Your task to perform on an android device: Open the map Image 0: 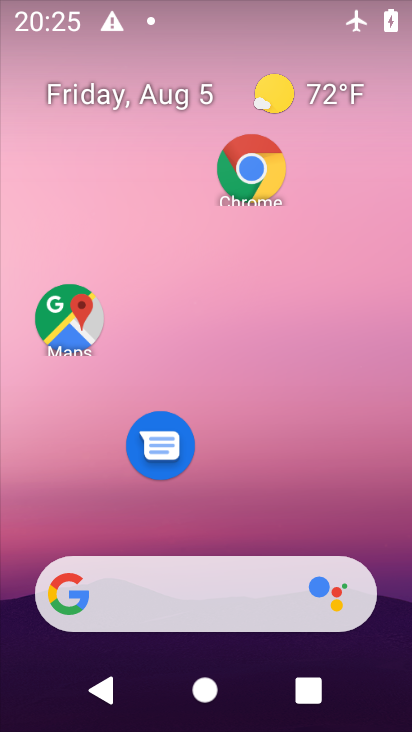
Step 0: click (92, 324)
Your task to perform on an android device: Open the map Image 1: 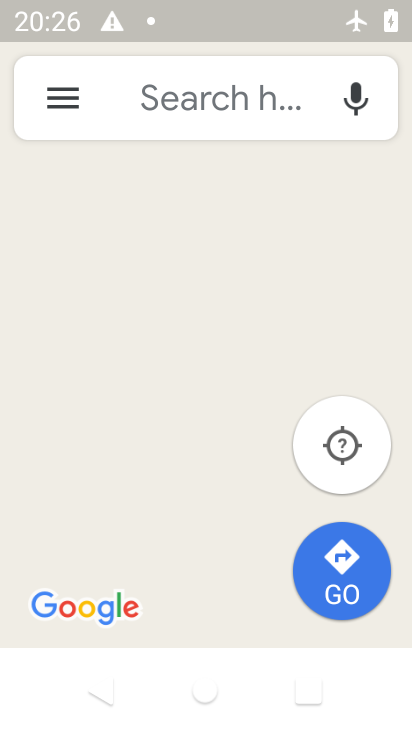
Step 1: task complete